Your task to perform on an android device: turn on improve location accuracy Image 0: 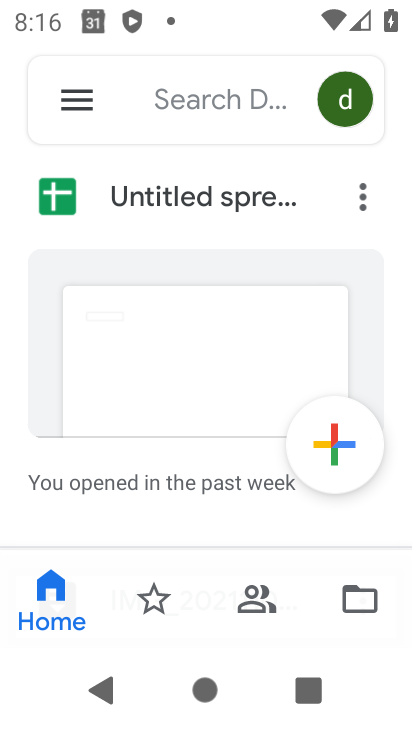
Step 0: press home button
Your task to perform on an android device: turn on improve location accuracy Image 1: 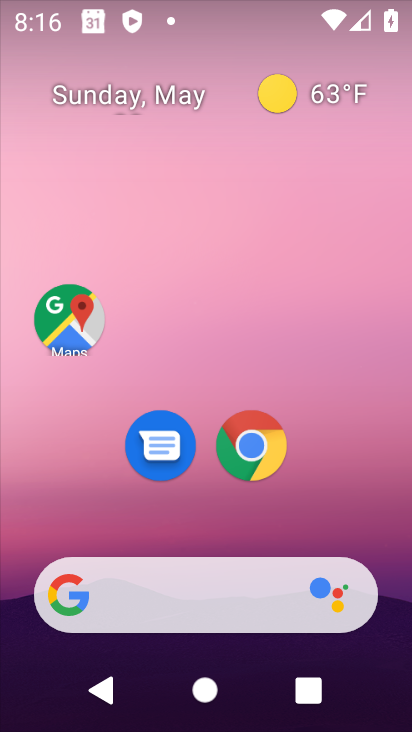
Step 1: drag from (358, 529) to (353, 226)
Your task to perform on an android device: turn on improve location accuracy Image 2: 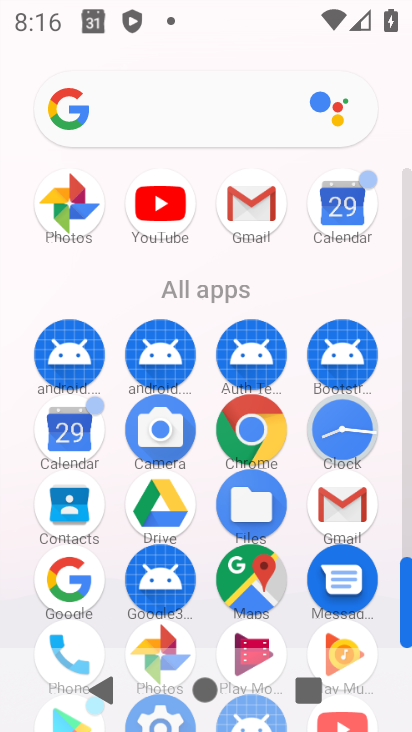
Step 2: drag from (388, 522) to (383, 296)
Your task to perform on an android device: turn on improve location accuracy Image 3: 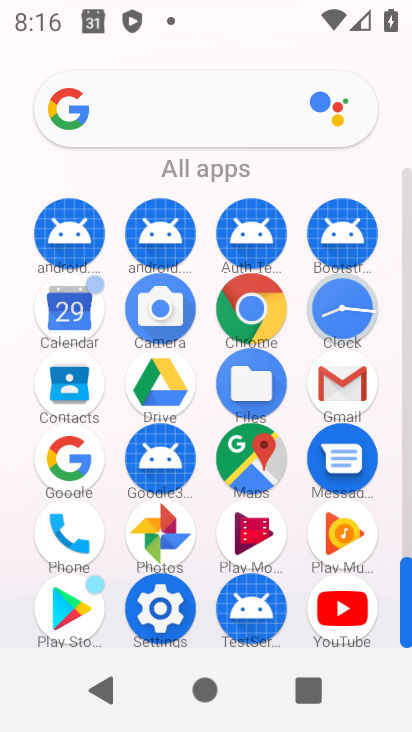
Step 3: click (164, 614)
Your task to perform on an android device: turn on improve location accuracy Image 4: 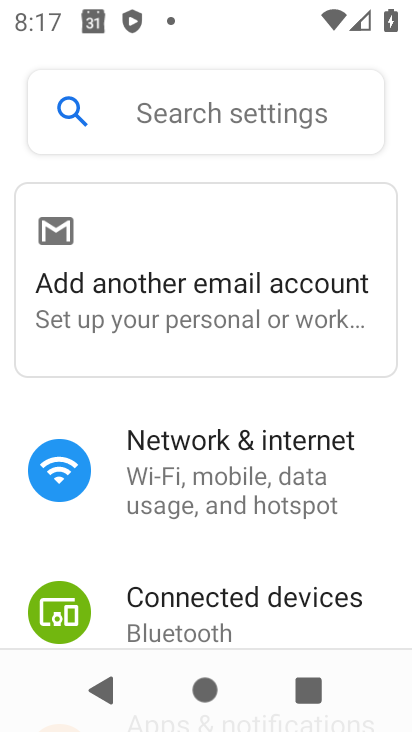
Step 4: drag from (369, 574) to (379, 435)
Your task to perform on an android device: turn on improve location accuracy Image 5: 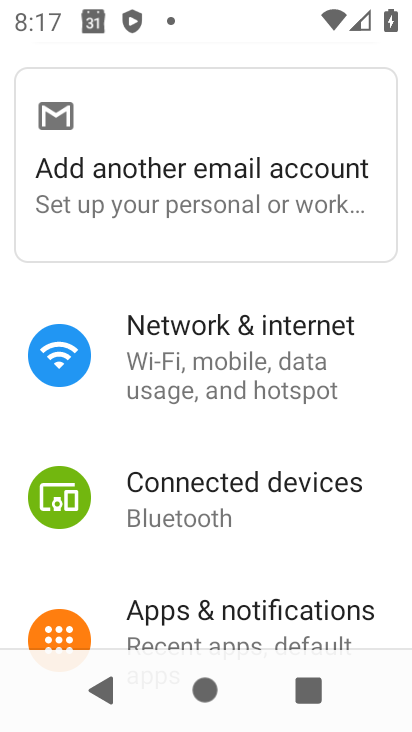
Step 5: drag from (375, 572) to (379, 437)
Your task to perform on an android device: turn on improve location accuracy Image 6: 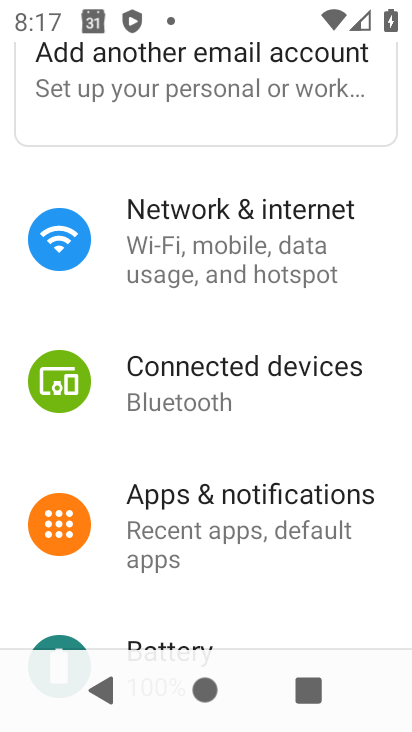
Step 6: drag from (385, 614) to (379, 476)
Your task to perform on an android device: turn on improve location accuracy Image 7: 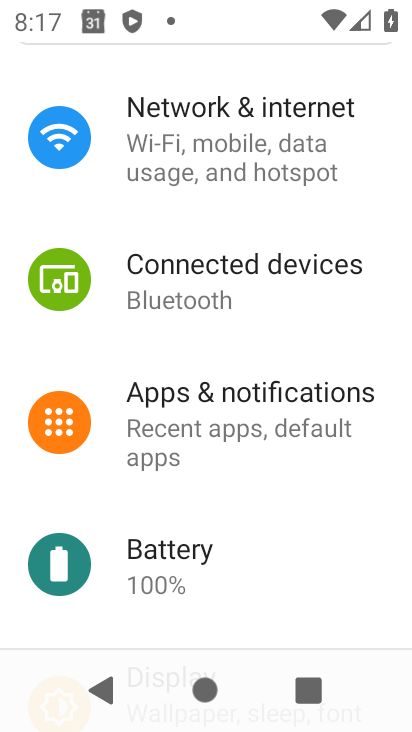
Step 7: drag from (367, 610) to (374, 477)
Your task to perform on an android device: turn on improve location accuracy Image 8: 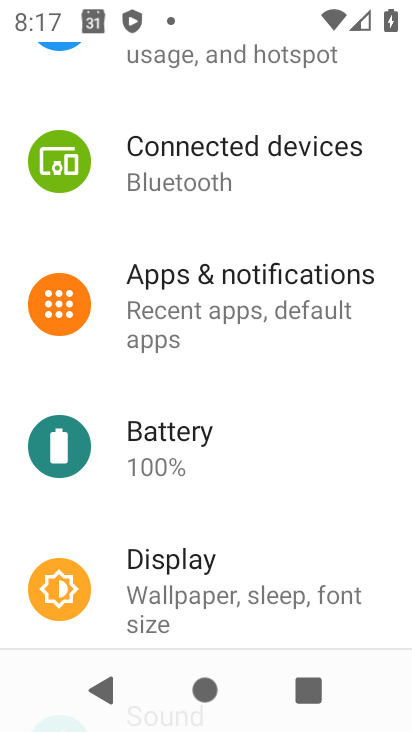
Step 8: drag from (349, 496) to (343, 396)
Your task to perform on an android device: turn on improve location accuracy Image 9: 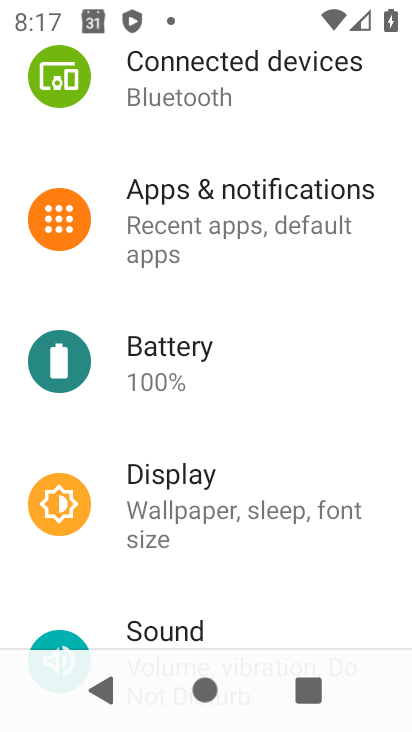
Step 9: drag from (370, 577) to (389, 474)
Your task to perform on an android device: turn on improve location accuracy Image 10: 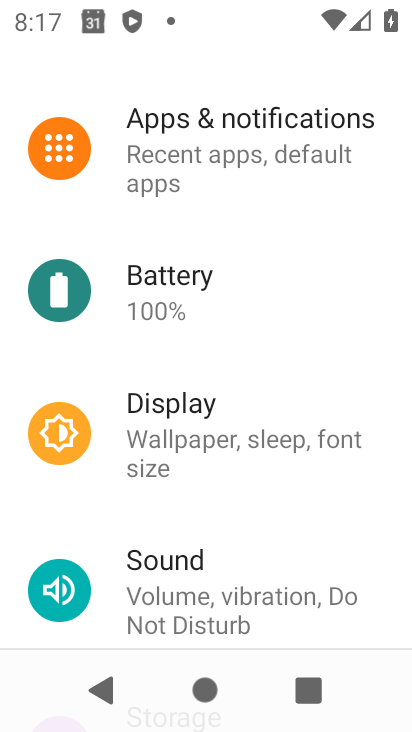
Step 10: drag from (384, 566) to (382, 465)
Your task to perform on an android device: turn on improve location accuracy Image 11: 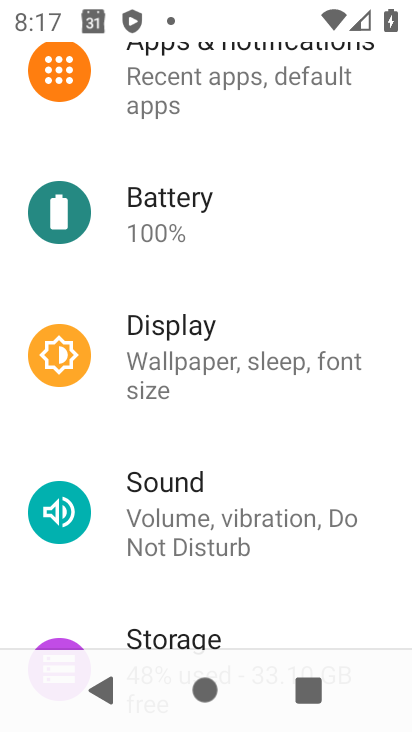
Step 11: drag from (354, 609) to (371, 444)
Your task to perform on an android device: turn on improve location accuracy Image 12: 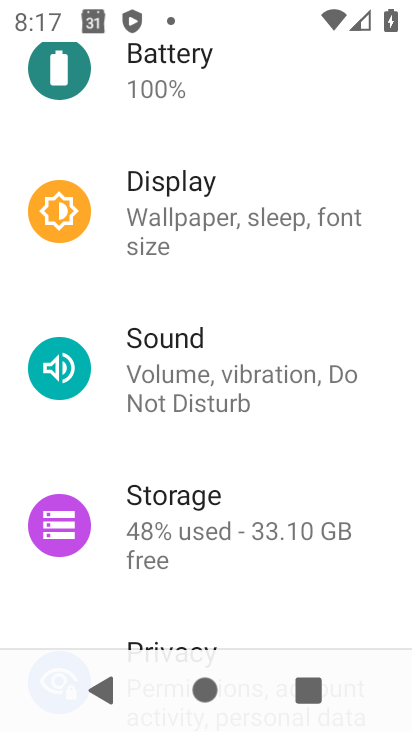
Step 12: drag from (368, 561) to (336, 443)
Your task to perform on an android device: turn on improve location accuracy Image 13: 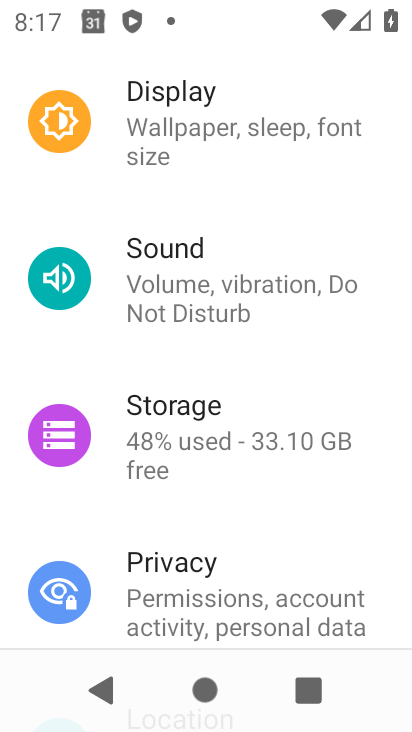
Step 13: drag from (329, 556) to (334, 424)
Your task to perform on an android device: turn on improve location accuracy Image 14: 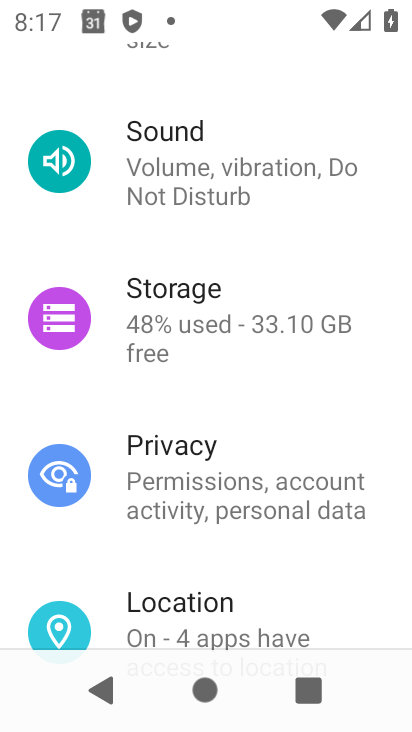
Step 14: drag from (353, 570) to (348, 438)
Your task to perform on an android device: turn on improve location accuracy Image 15: 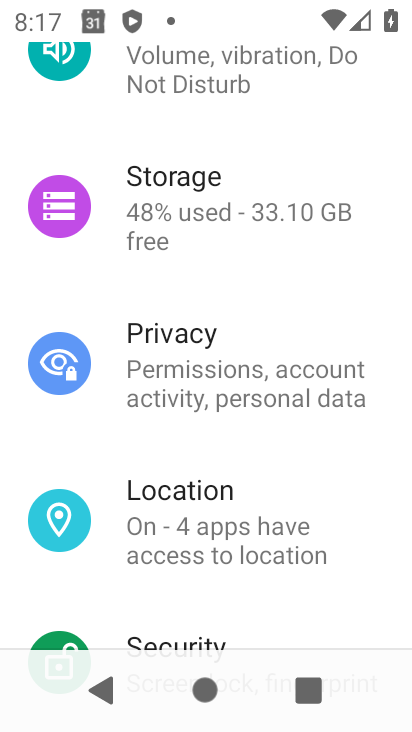
Step 15: drag from (373, 604) to (372, 478)
Your task to perform on an android device: turn on improve location accuracy Image 16: 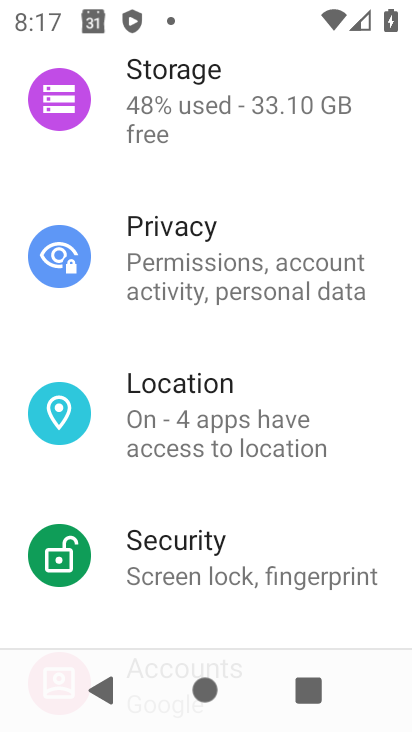
Step 16: click (297, 442)
Your task to perform on an android device: turn on improve location accuracy Image 17: 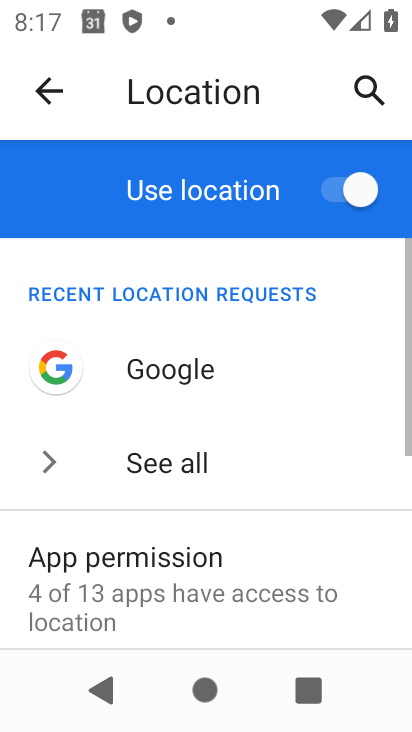
Step 17: drag from (316, 538) to (333, 424)
Your task to perform on an android device: turn on improve location accuracy Image 18: 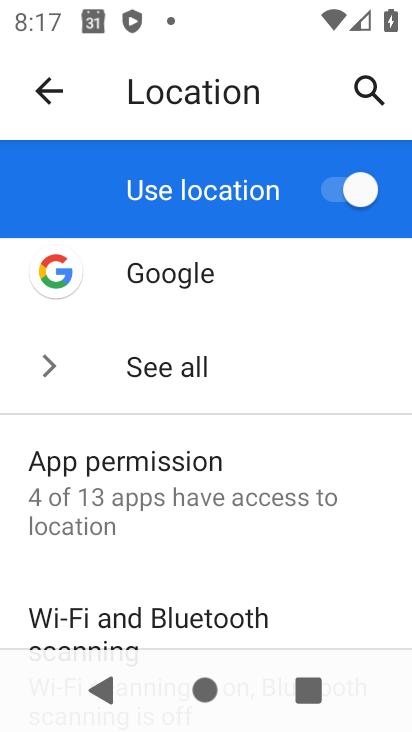
Step 18: drag from (360, 565) to (360, 434)
Your task to perform on an android device: turn on improve location accuracy Image 19: 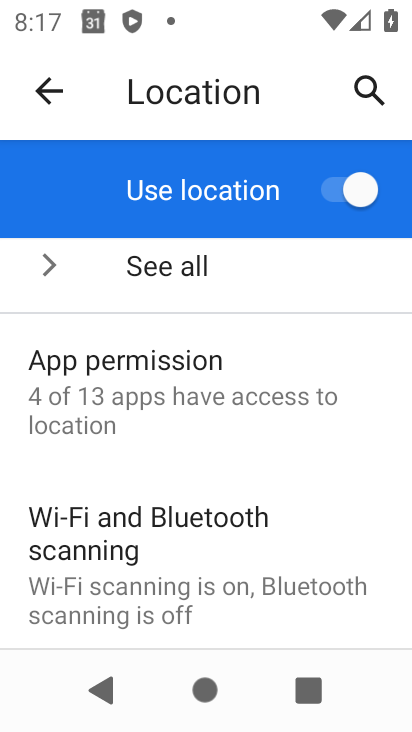
Step 19: drag from (354, 547) to (355, 411)
Your task to perform on an android device: turn on improve location accuracy Image 20: 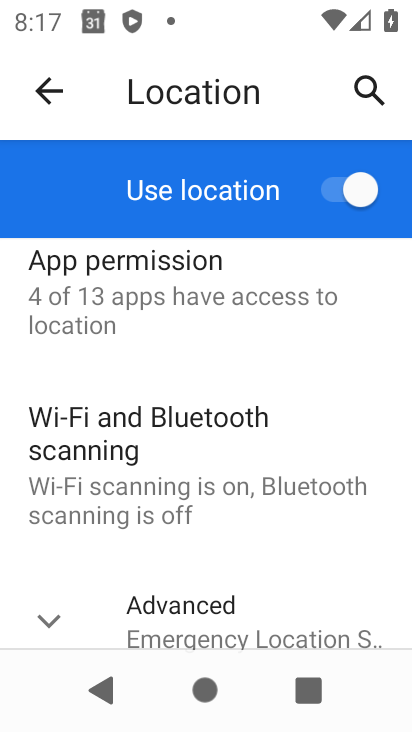
Step 20: drag from (348, 574) to (328, 394)
Your task to perform on an android device: turn on improve location accuracy Image 21: 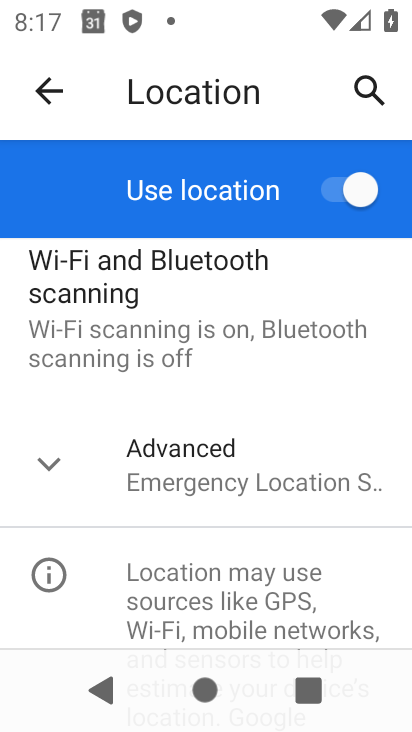
Step 21: drag from (332, 583) to (324, 398)
Your task to perform on an android device: turn on improve location accuracy Image 22: 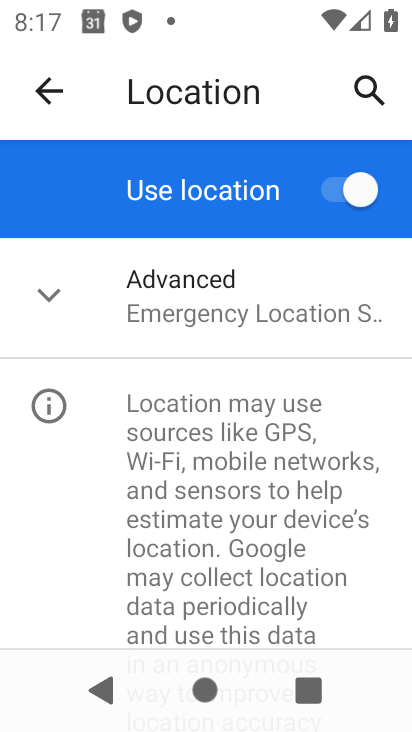
Step 22: click (315, 306)
Your task to perform on an android device: turn on improve location accuracy Image 23: 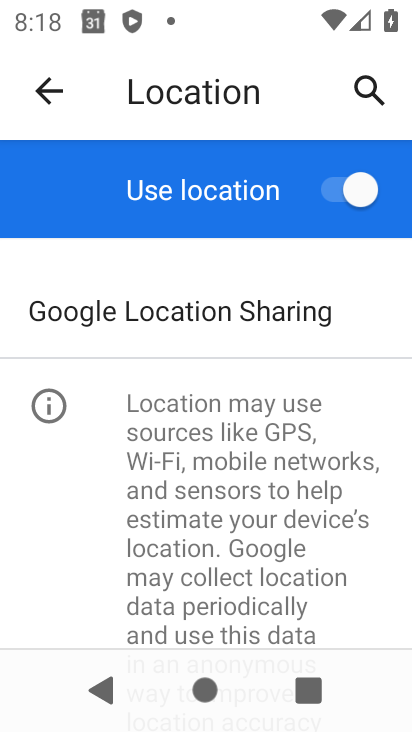
Step 23: drag from (375, 602) to (378, 336)
Your task to perform on an android device: turn on improve location accuracy Image 24: 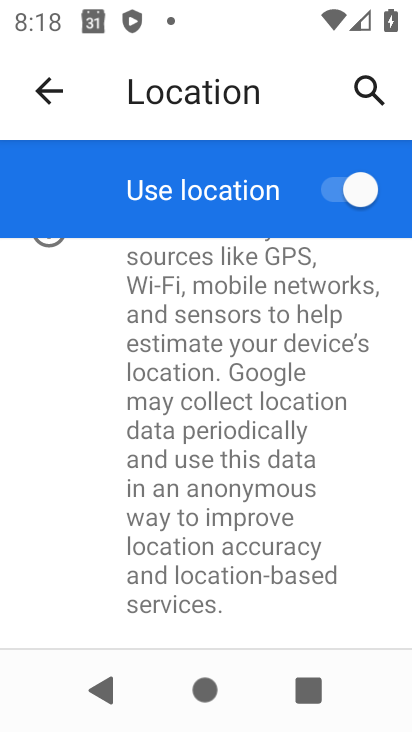
Step 24: drag from (348, 395) to (347, 609)
Your task to perform on an android device: turn on improve location accuracy Image 25: 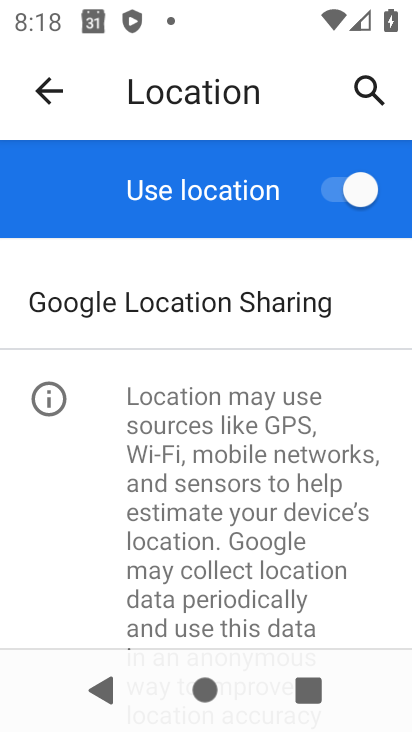
Step 25: drag from (349, 314) to (360, 512)
Your task to perform on an android device: turn on improve location accuracy Image 26: 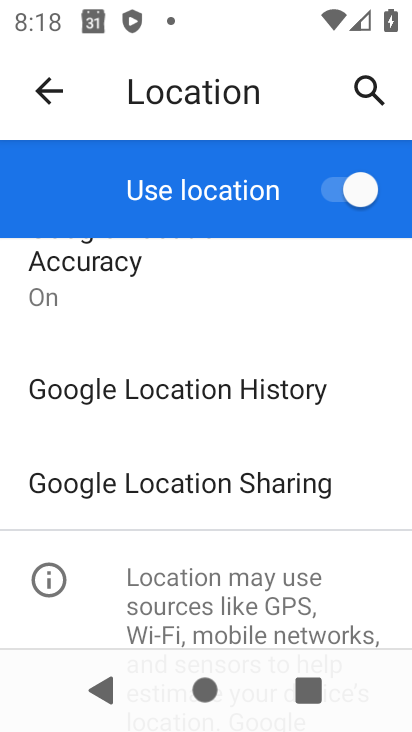
Step 26: drag from (358, 309) to (358, 506)
Your task to perform on an android device: turn on improve location accuracy Image 27: 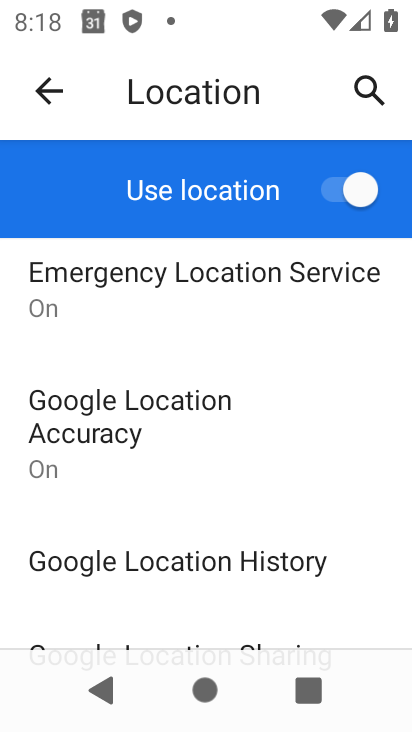
Step 27: click (247, 428)
Your task to perform on an android device: turn on improve location accuracy Image 28: 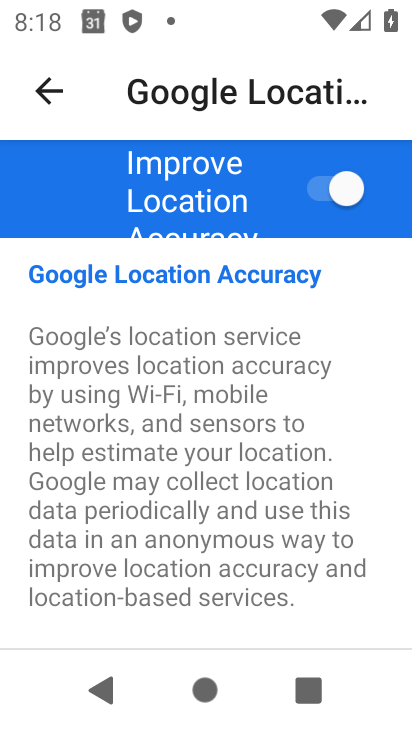
Step 28: task complete